Your task to perform on an android device: turn on translation in the chrome app Image 0: 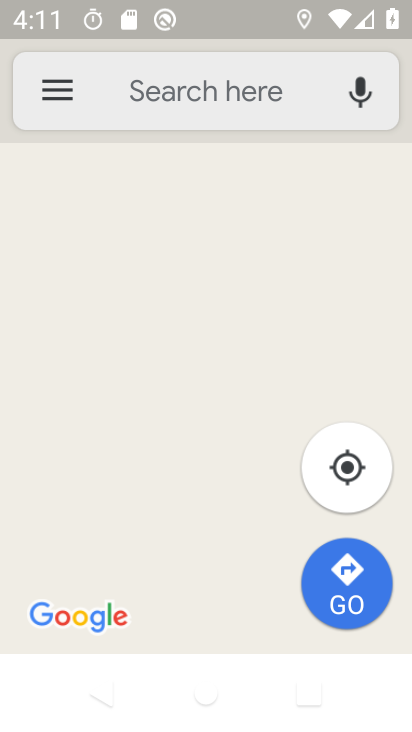
Step 0: press back button
Your task to perform on an android device: turn on translation in the chrome app Image 1: 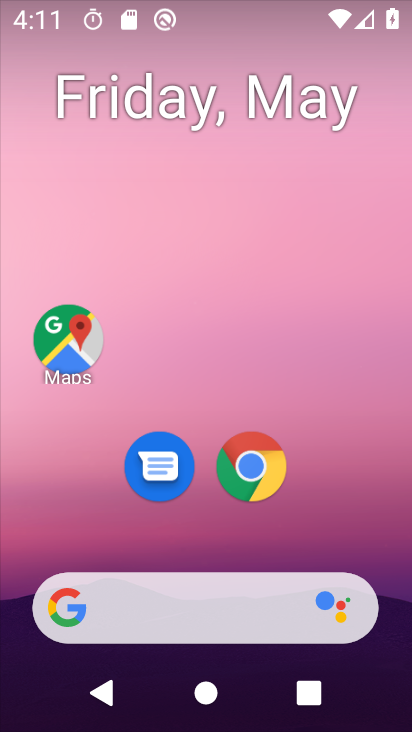
Step 1: click (259, 468)
Your task to perform on an android device: turn on translation in the chrome app Image 2: 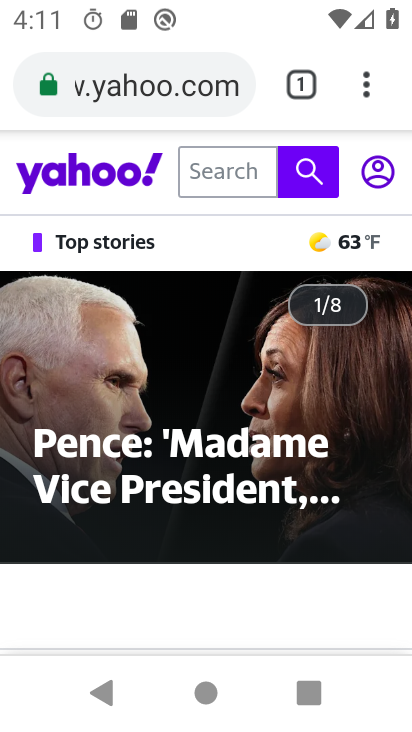
Step 2: click (368, 82)
Your task to perform on an android device: turn on translation in the chrome app Image 3: 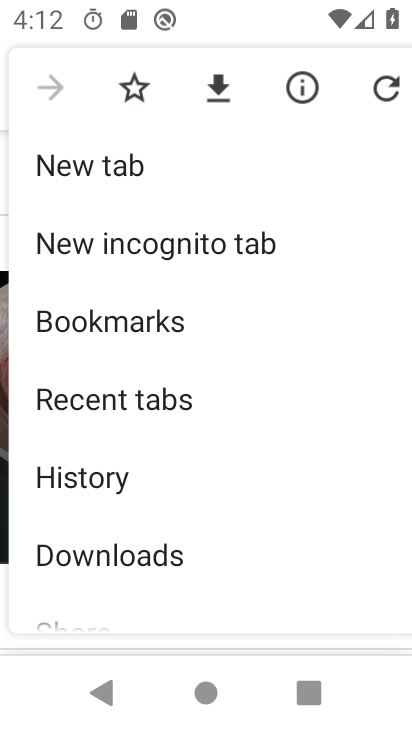
Step 3: drag from (309, 574) to (293, 253)
Your task to perform on an android device: turn on translation in the chrome app Image 4: 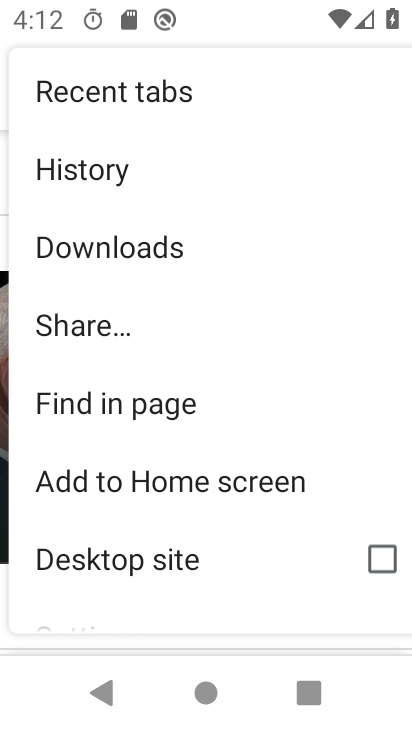
Step 4: drag from (263, 581) to (234, 322)
Your task to perform on an android device: turn on translation in the chrome app Image 5: 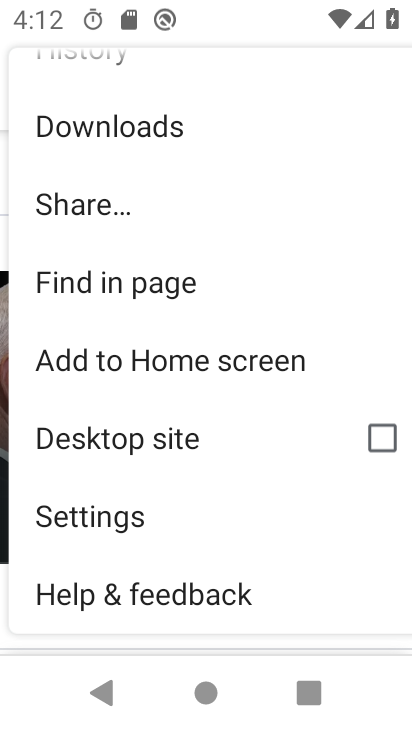
Step 5: click (93, 525)
Your task to perform on an android device: turn on translation in the chrome app Image 6: 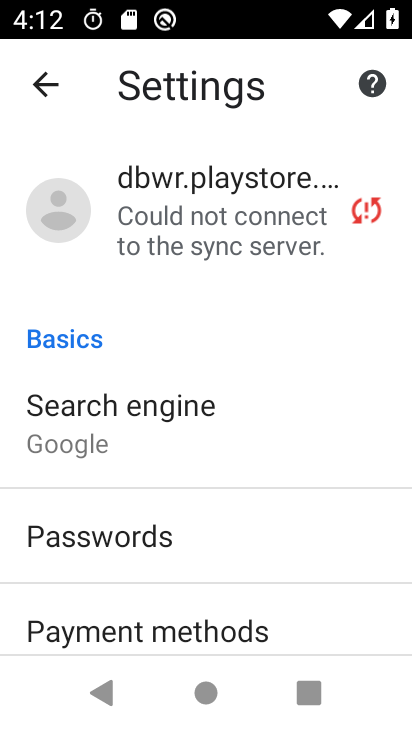
Step 6: drag from (321, 374) to (315, 278)
Your task to perform on an android device: turn on translation in the chrome app Image 7: 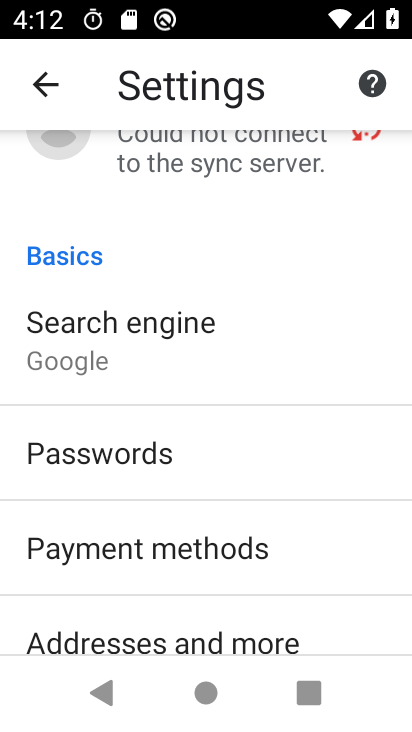
Step 7: drag from (349, 541) to (342, 287)
Your task to perform on an android device: turn on translation in the chrome app Image 8: 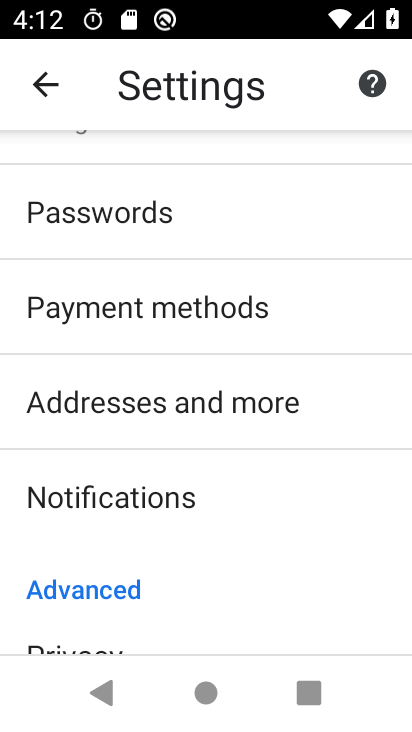
Step 8: drag from (351, 597) to (334, 317)
Your task to perform on an android device: turn on translation in the chrome app Image 9: 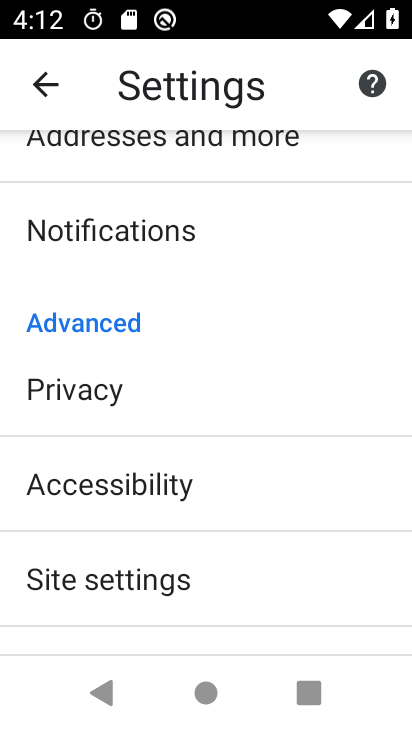
Step 9: drag from (263, 614) to (243, 271)
Your task to perform on an android device: turn on translation in the chrome app Image 10: 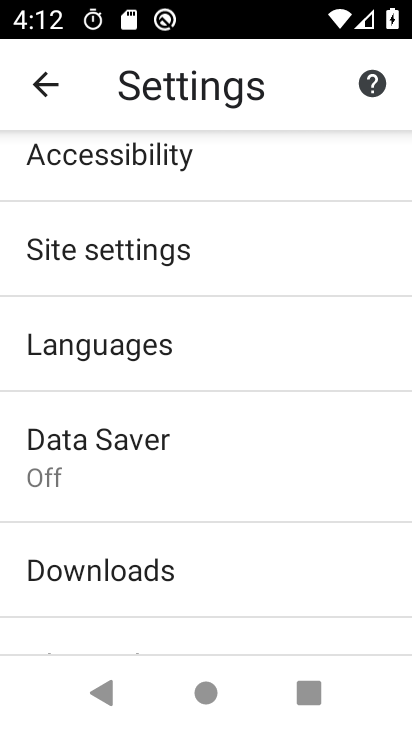
Step 10: click (91, 346)
Your task to perform on an android device: turn on translation in the chrome app Image 11: 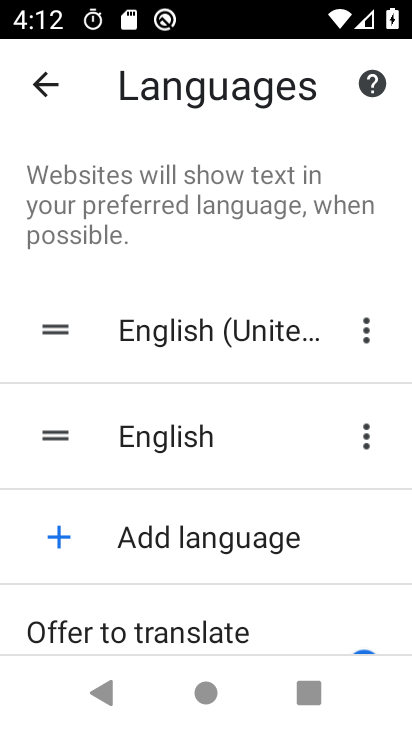
Step 11: task complete